Your task to perform on an android device: turn on data saver in the chrome app Image 0: 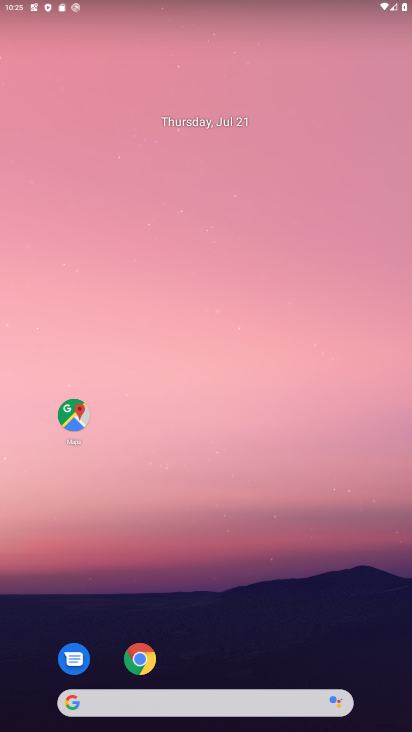
Step 0: drag from (256, 601) to (268, 13)
Your task to perform on an android device: turn on data saver in the chrome app Image 1: 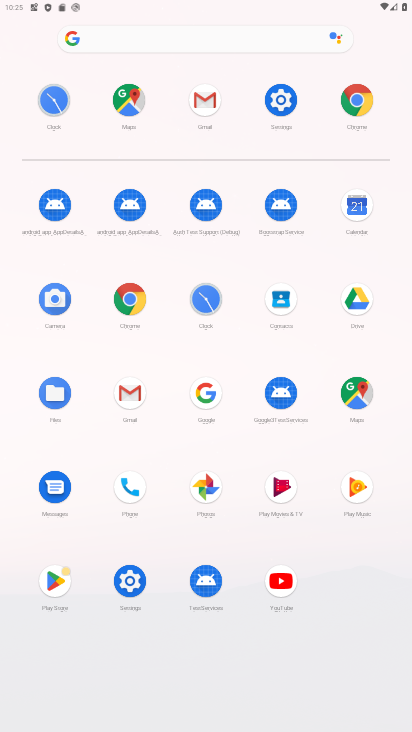
Step 1: click (133, 301)
Your task to perform on an android device: turn on data saver in the chrome app Image 2: 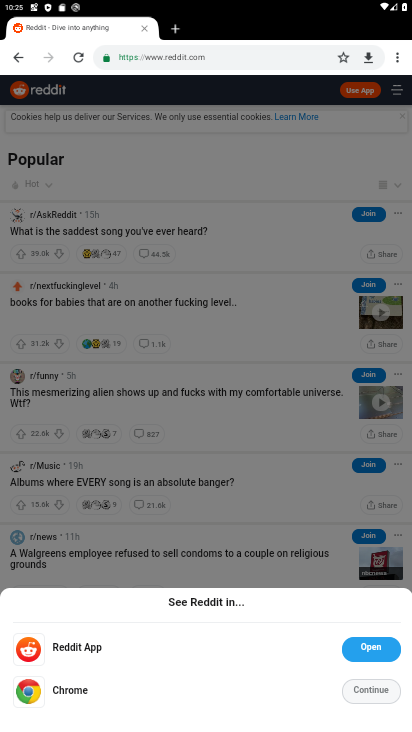
Step 2: drag from (397, 53) to (278, 376)
Your task to perform on an android device: turn on data saver in the chrome app Image 3: 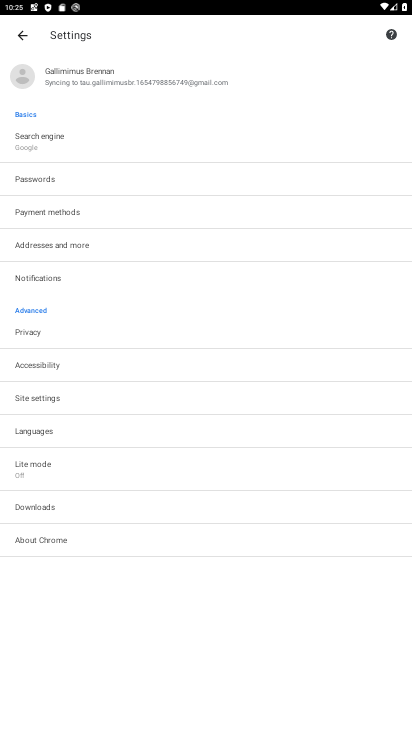
Step 3: click (50, 471)
Your task to perform on an android device: turn on data saver in the chrome app Image 4: 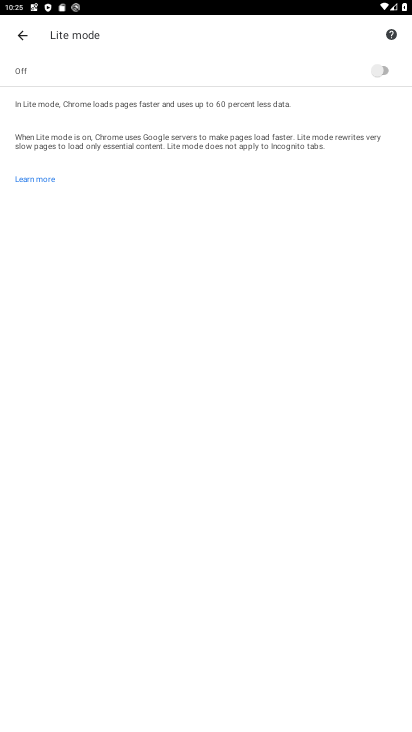
Step 4: click (379, 68)
Your task to perform on an android device: turn on data saver in the chrome app Image 5: 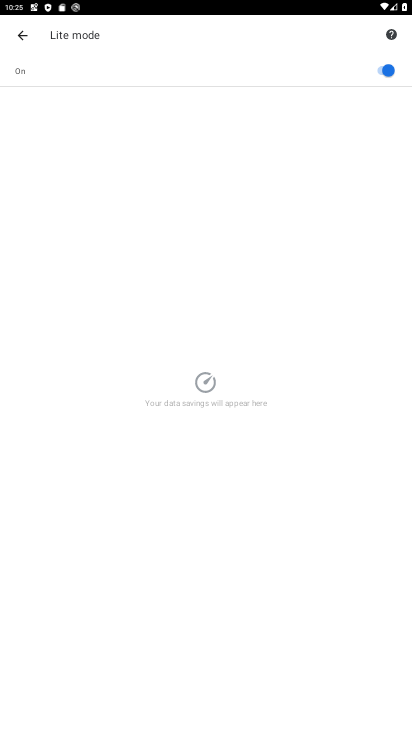
Step 5: task complete